Your task to perform on an android device: Go to eBay Image 0: 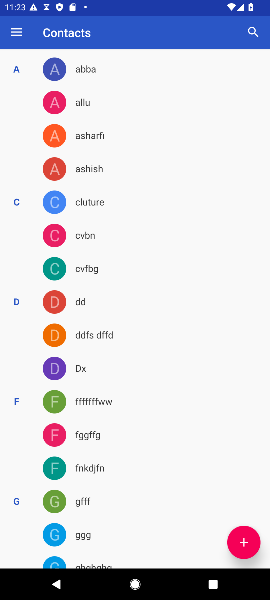
Step 0: press back button
Your task to perform on an android device: Go to eBay Image 1: 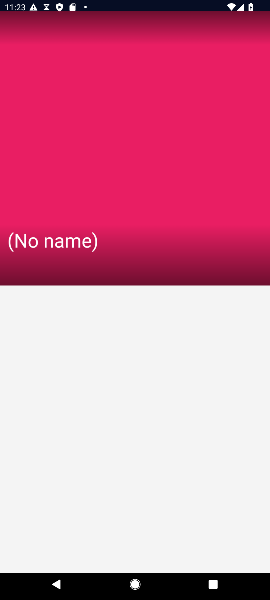
Step 1: press home button
Your task to perform on an android device: Go to eBay Image 2: 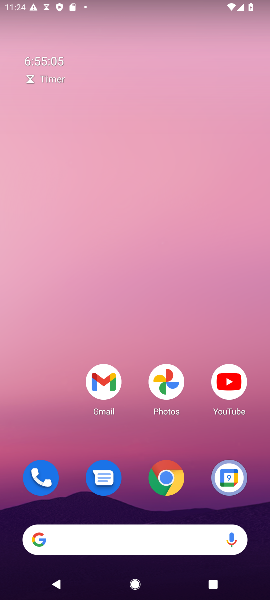
Step 2: click (162, 477)
Your task to perform on an android device: Go to eBay Image 3: 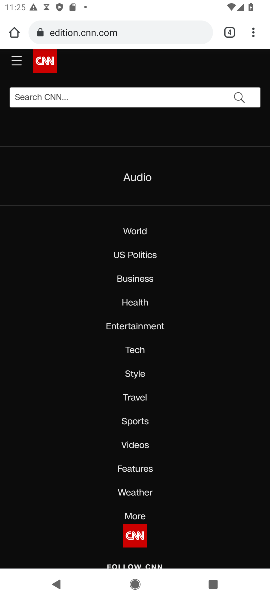
Step 3: click (121, 38)
Your task to perform on an android device: Go to eBay Image 4: 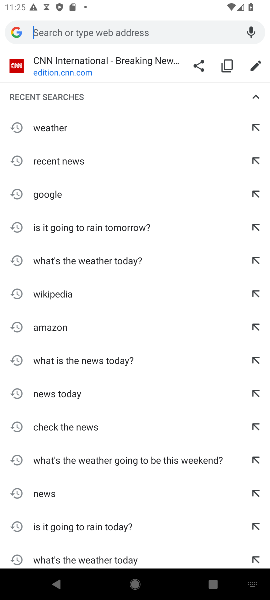
Step 4: type "eBay"
Your task to perform on an android device: Go to eBay Image 5: 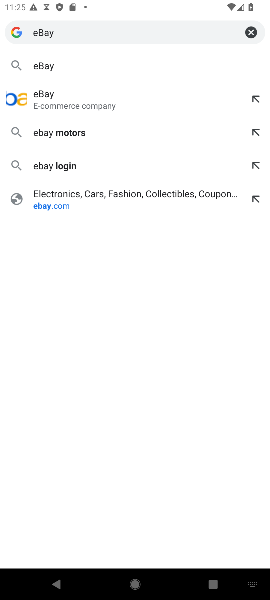
Step 5: click (61, 68)
Your task to perform on an android device: Go to eBay Image 6: 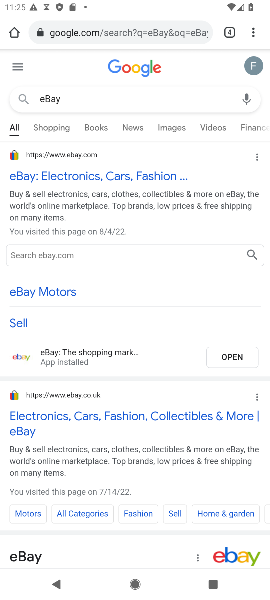
Step 6: click (79, 178)
Your task to perform on an android device: Go to eBay Image 7: 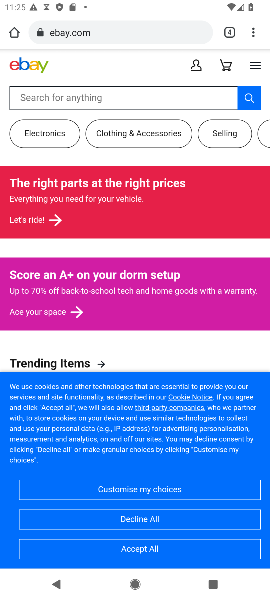
Step 7: task complete